Your task to perform on an android device: turn on translation in the chrome app Image 0: 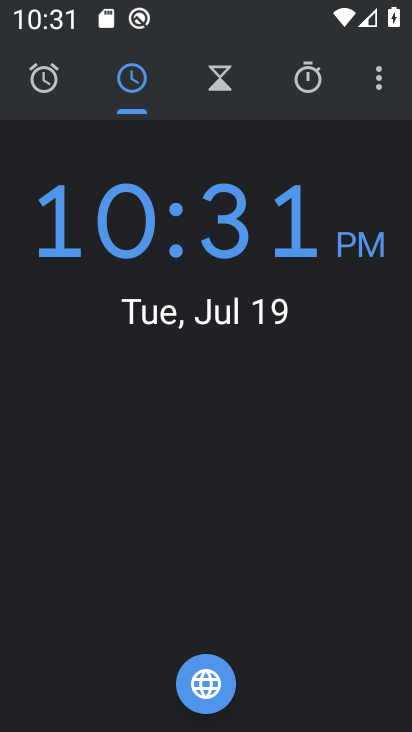
Step 0: press home button
Your task to perform on an android device: turn on translation in the chrome app Image 1: 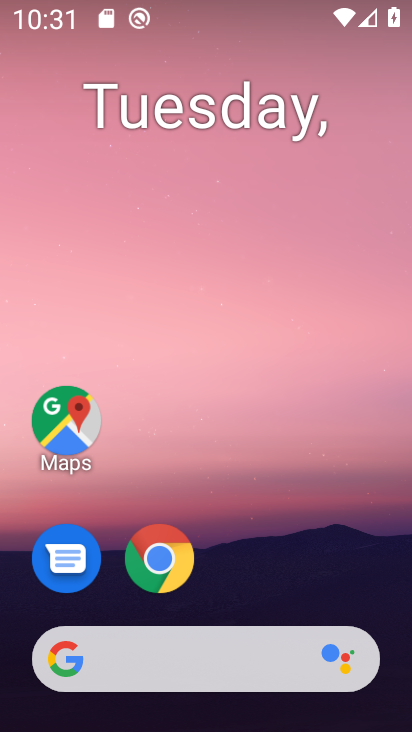
Step 1: drag from (342, 570) to (348, 143)
Your task to perform on an android device: turn on translation in the chrome app Image 2: 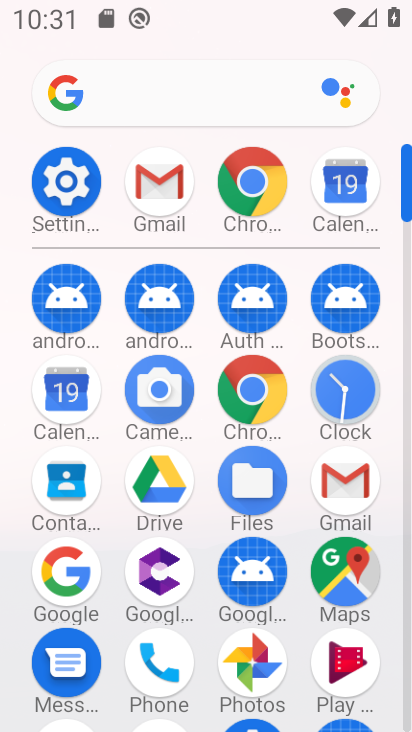
Step 2: click (270, 389)
Your task to perform on an android device: turn on translation in the chrome app Image 3: 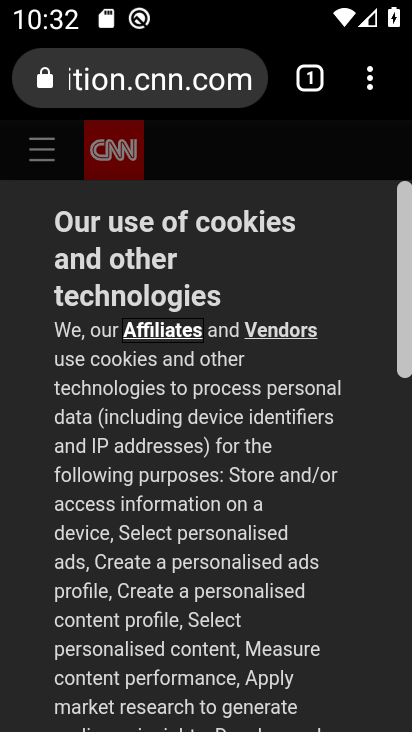
Step 3: click (370, 89)
Your task to perform on an android device: turn on translation in the chrome app Image 4: 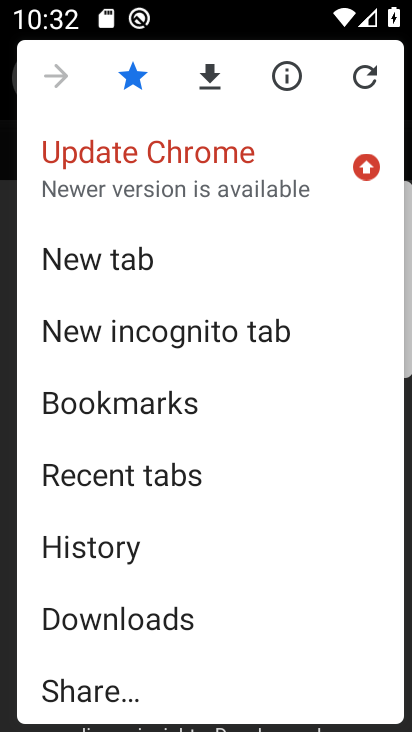
Step 4: drag from (299, 564) to (304, 497)
Your task to perform on an android device: turn on translation in the chrome app Image 5: 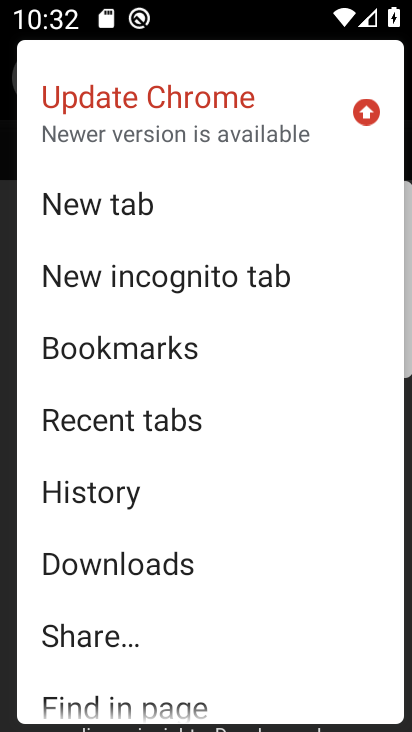
Step 5: drag from (311, 494) to (321, 421)
Your task to perform on an android device: turn on translation in the chrome app Image 6: 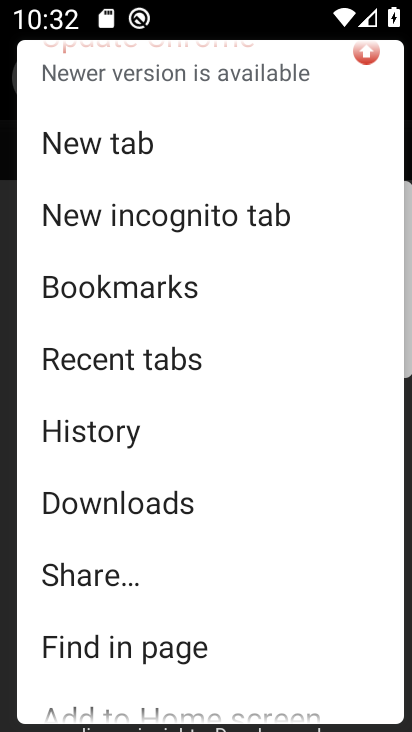
Step 6: drag from (303, 520) to (310, 454)
Your task to perform on an android device: turn on translation in the chrome app Image 7: 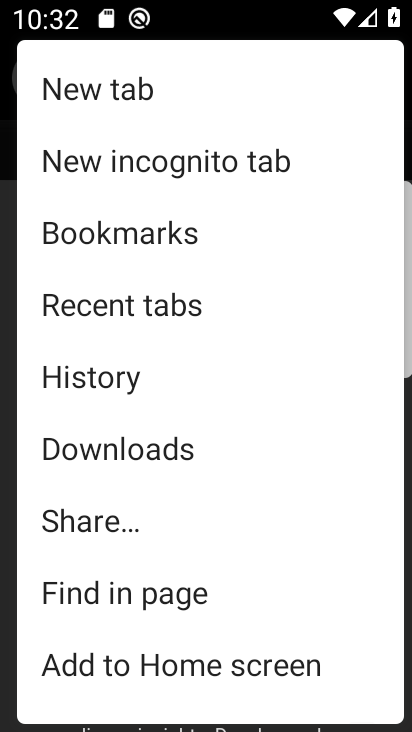
Step 7: drag from (301, 531) to (307, 427)
Your task to perform on an android device: turn on translation in the chrome app Image 8: 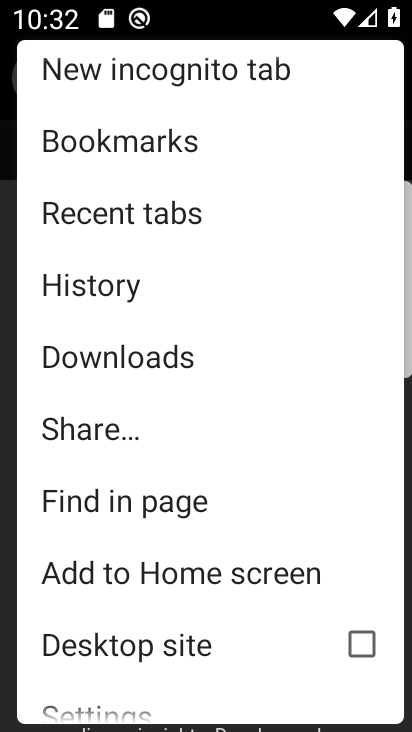
Step 8: drag from (297, 600) to (310, 462)
Your task to perform on an android device: turn on translation in the chrome app Image 9: 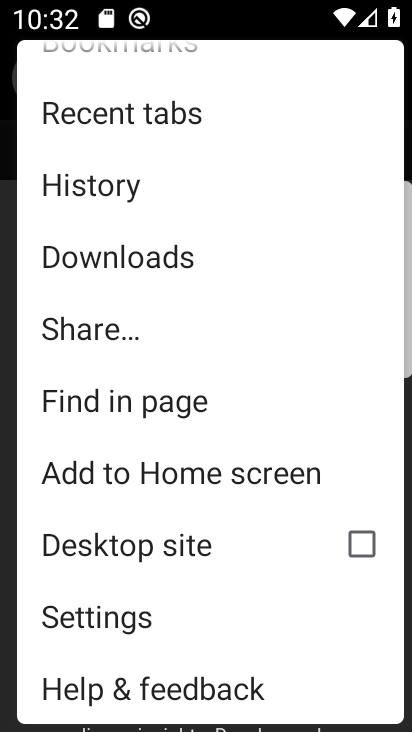
Step 9: click (257, 617)
Your task to perform on an android device: turn on translation in the chrome app Image 10: 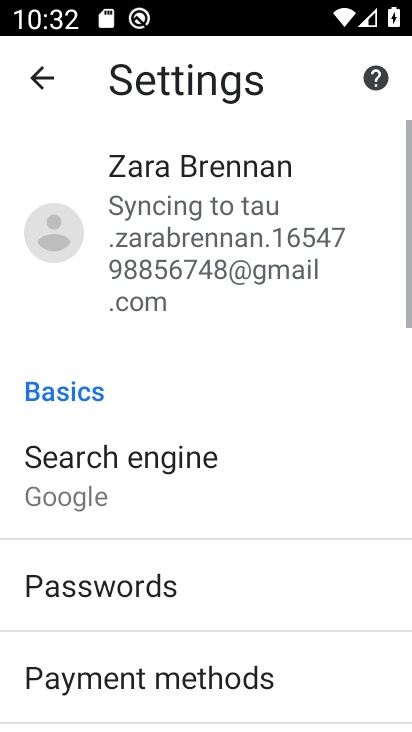
Step 10: drag from (308, 593) to (314, 478)
Your task to perform on an android device: turn on translation in the chrome app Image 11: 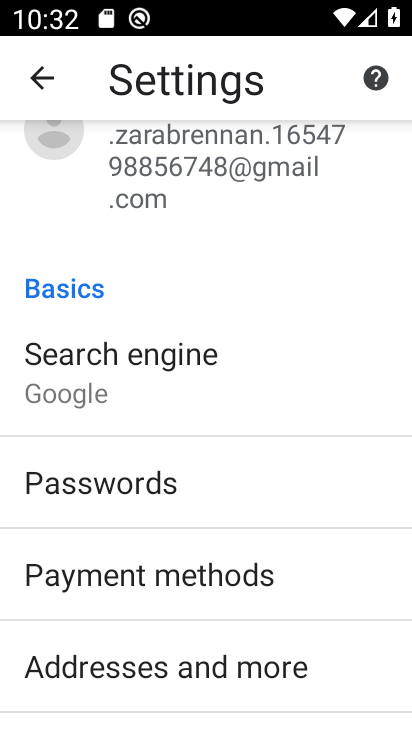
Step 11: drag from (321, 601) to (325, 491)
Your task to perform on an android device: turn on translation in the chrome app Image 12: 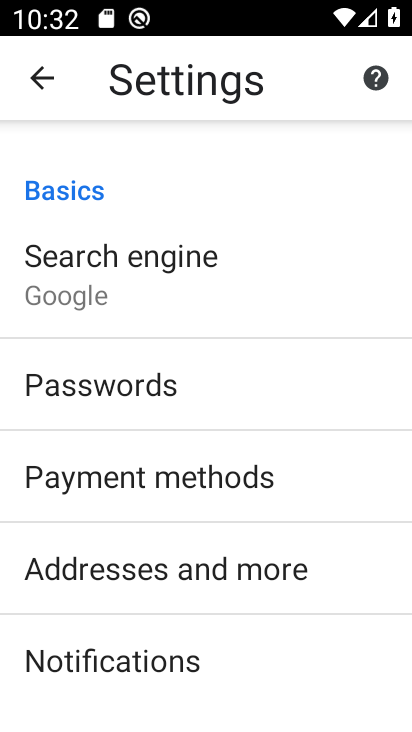
Step 12: drag from (324, 625) to (324, 526)
Your task to perform on an android device: turn on translation in the chrome app Image 13: 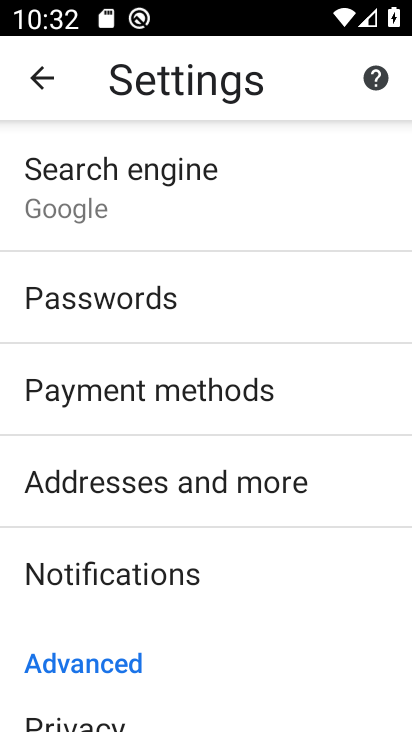
Step 13: drag from (313, 611) to (313, 504)
Your task to perform on an android device: turn on translation in the chrome app Image 14: 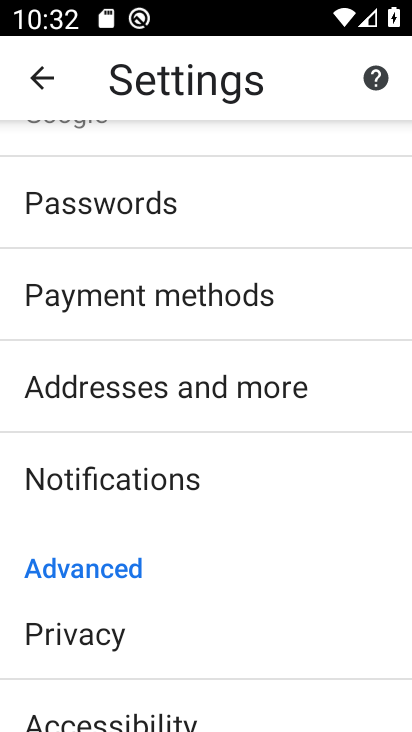
Step 14: drag from (310, 599) to (315, 515)
Your task to perform on an android device: turn on translation in the chrome app Image 15: 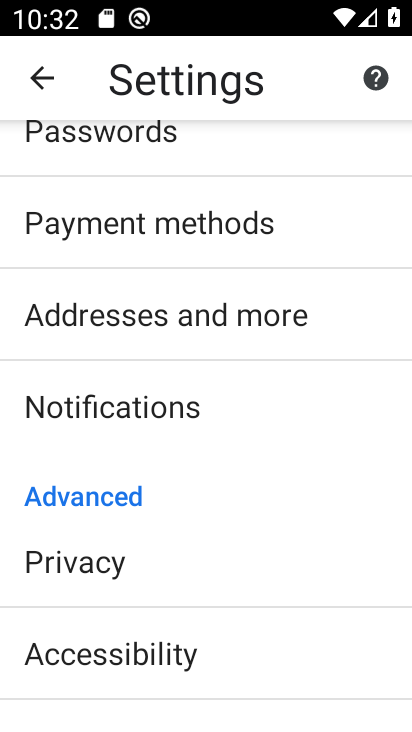
Step 15: drag from (309, 624) to (318, 544)
Your task to perform on an android device: turn on translation in the chrome app Image 16: 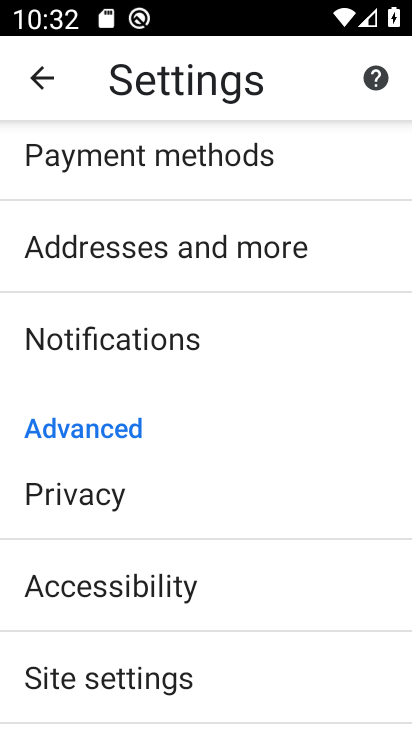
Step 16: drag from (297, 643) to (302, 545)
Your task to perform on an android device: turn on translation in the chrome app Image 17: 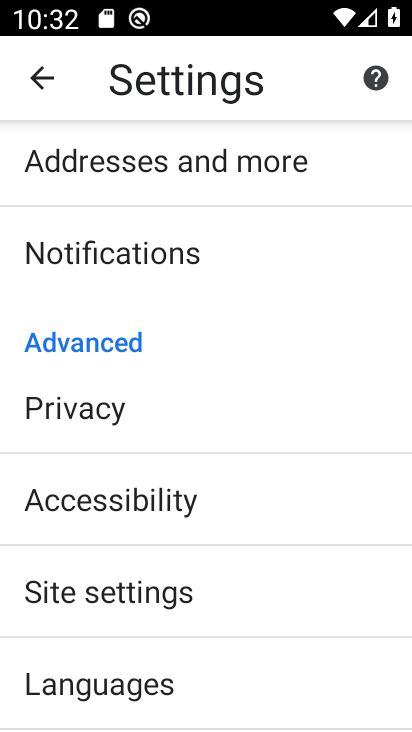
Step 17: click (282, 655)
Your task to perform on an android device: turn on translation in the chrome app Image 18: 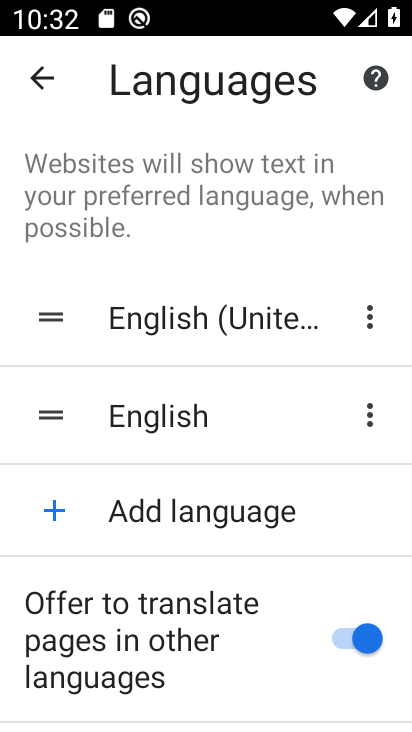
Step 18: task complete